Your task to perform on an android device: toggle show notifications on the lock screen Image 0: 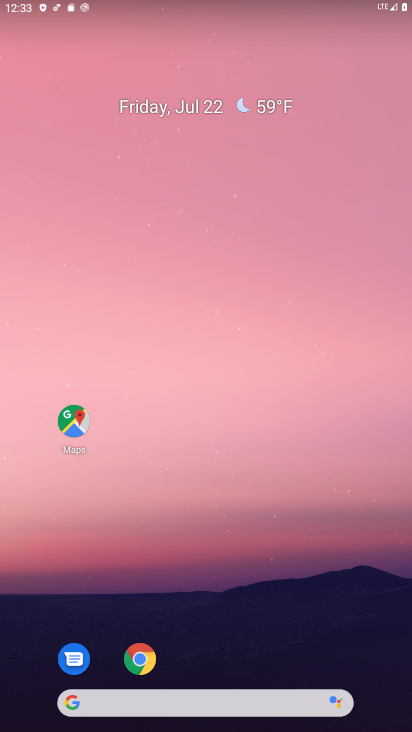
Step 0: drag from (207, 628) to (215, 193)
Your task to perform on an android device: toggle show notifications on the lock screen Image 1: 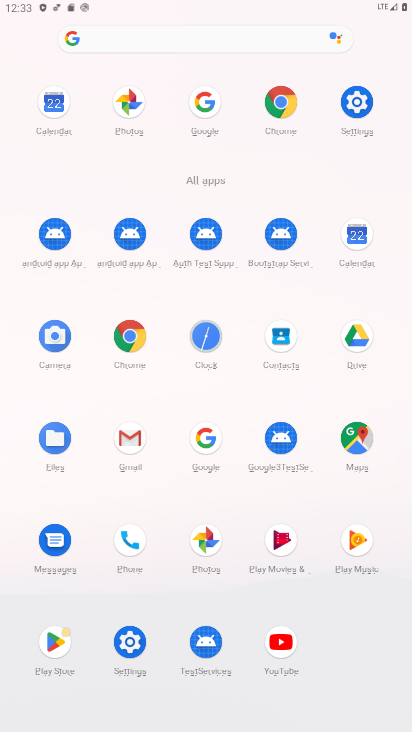
Step 1: click (340, 114)
Your task to perform on an android device: toggle show notifications on the lock screen Image 2: 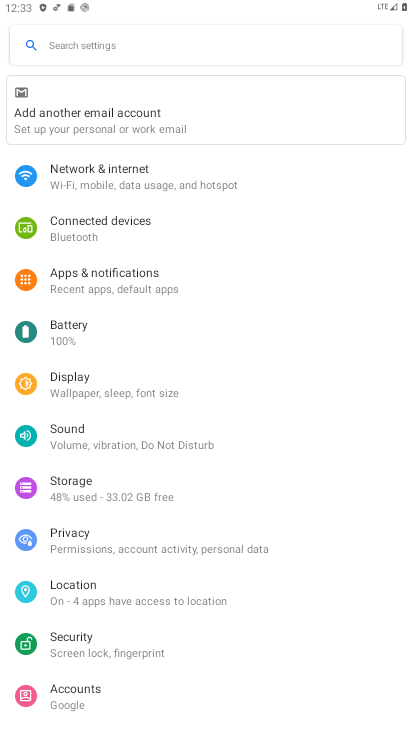
Step 2: click (155, 284)
Your task to perform on an android device: toggle show notifications on the lock screen Image 3: 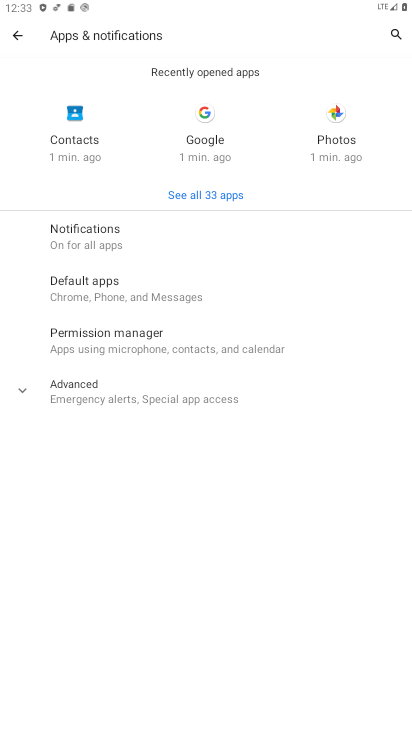
Step 3: click (81, 246)
Your task to perform on an android device: toggle show notifications on the lock screen Image 4: 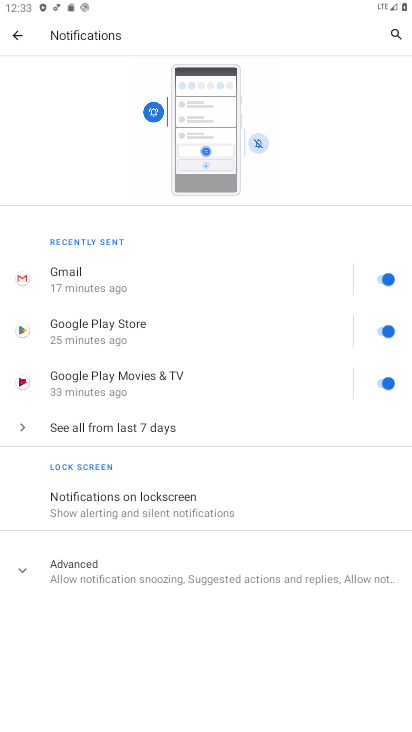
Step 4: click (177, 504)
Your task to perform on an android device: toggle show notifications on the lock screen Image 5: 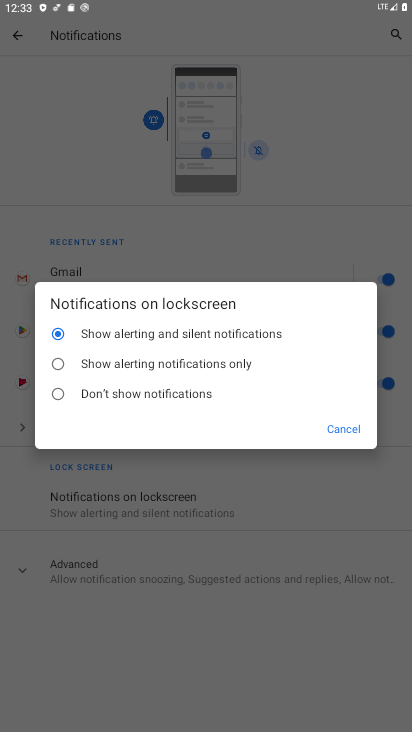
Step 5: click (143, 398)
Your task to perform on an android device: toggle show notifications on the lock screen Image 6: 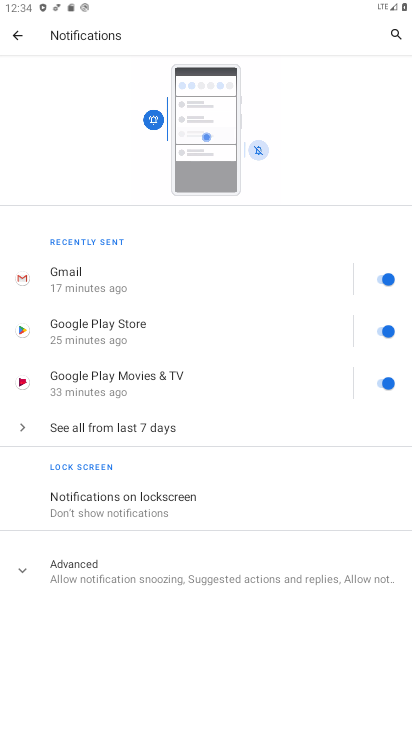
Step 6: click (166, 523)
Your task to perform on an android device: toggle show notifications on the lock screen Image 7: 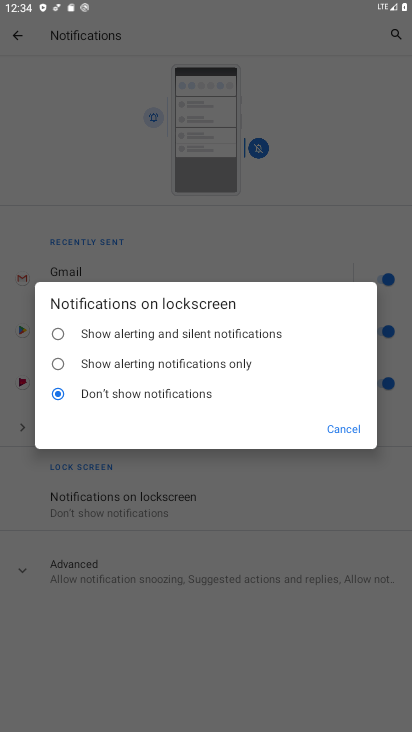
Step 7: click (195, 325)
Your task to perform on an android device: toggle show notifications on the lock screen Image 8: 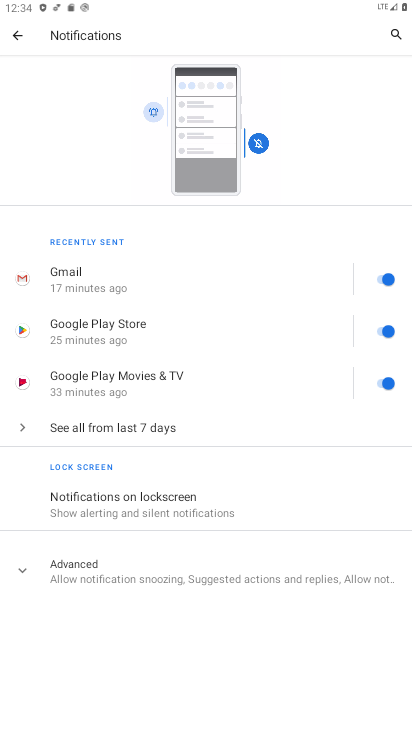
Step 8: task complete